Your task to perform on an android device: move an email to a new category in the gmail app Image 0: 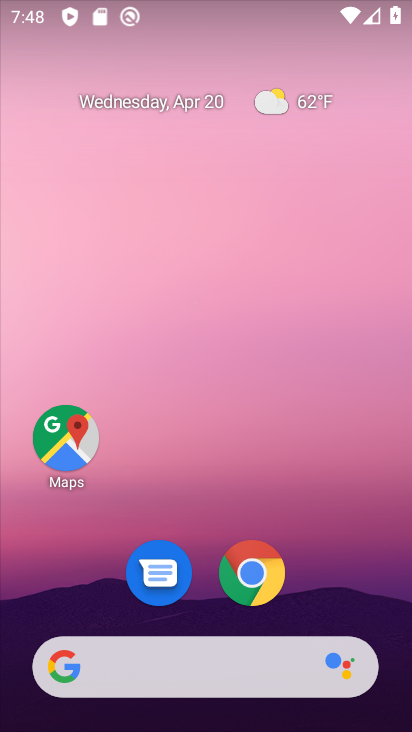
Step 0: drag from (290, 620) to (261, 74)
Your task to perform on an android device: move an email to a new category in the gmail app Image 1: 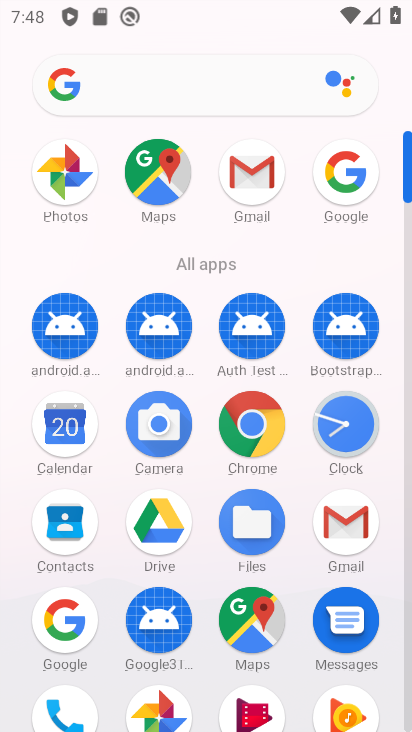
Step 1: click (255, 168)
Your task to perform on an android device: move an email to a new category in the gmail app Image 2: 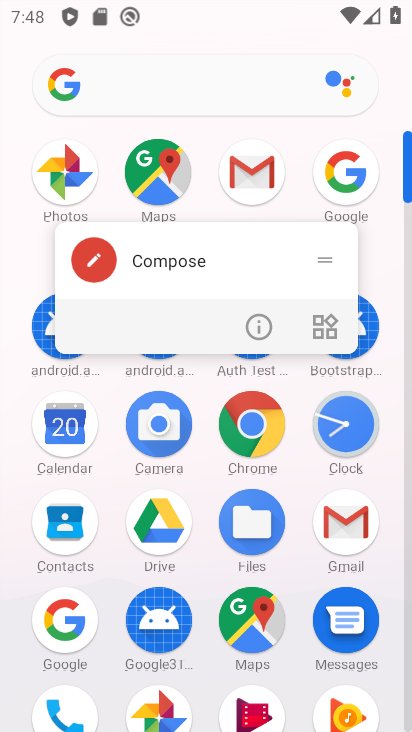
Step 2: click (266, 156)
Your task to perform on an android device: move an email to a new category in the gmail app Image 3: 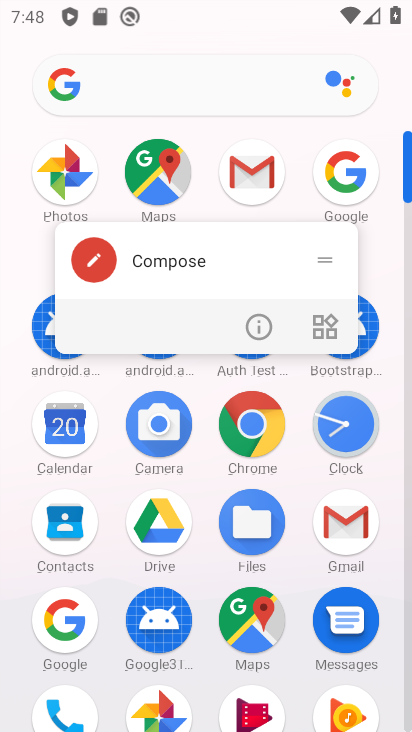
Step 3: click (244, 171)
Your task to perform on an android device: move an email to a new category in the gmail app Image 4: 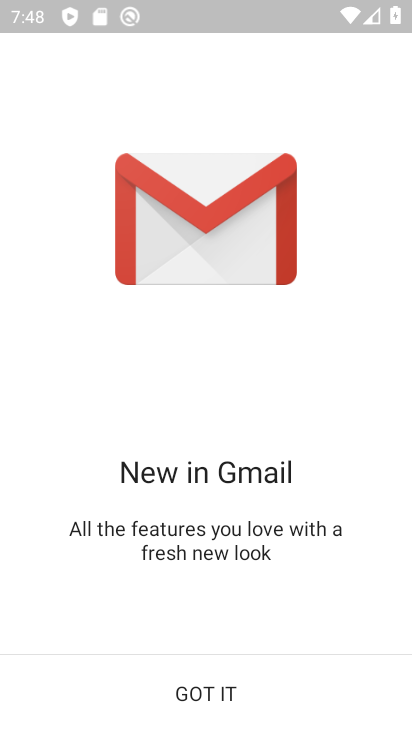
Step 4: click (241, 679)
Your task to perform on an android device: move an email to a new category in the gmail app Image 5: 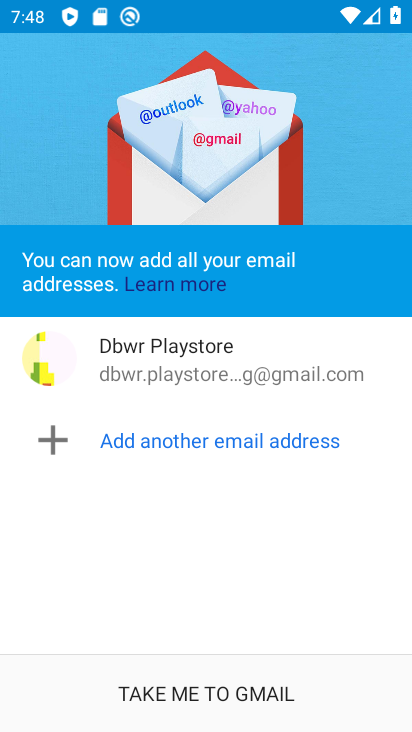
Step 5: click (241, 679)
Your task to perform on an android device: move an email to a new category in the gmail app Image 6: 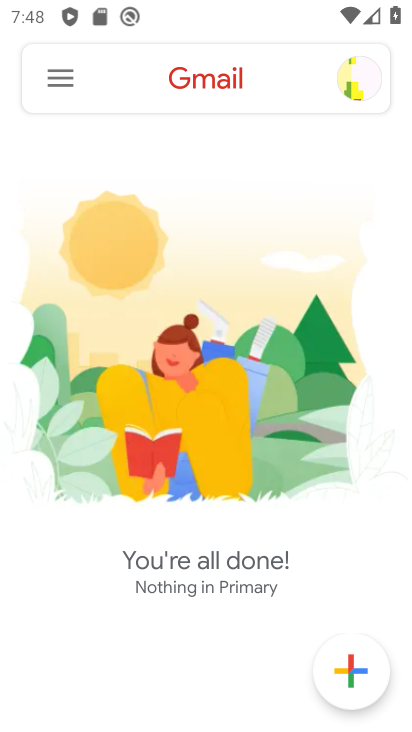
Step 6: click (52, 55)
Your task to perform on an android device: move an email to a new category in the gmail app Image 7: 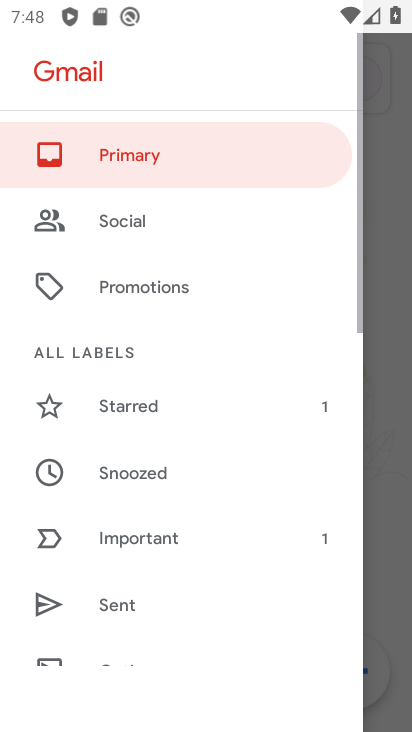
Step 7: drag from (220, 557) to (246, 18)
Your task to perform on an android device: move an email to a new category in the gmail app Image 8: 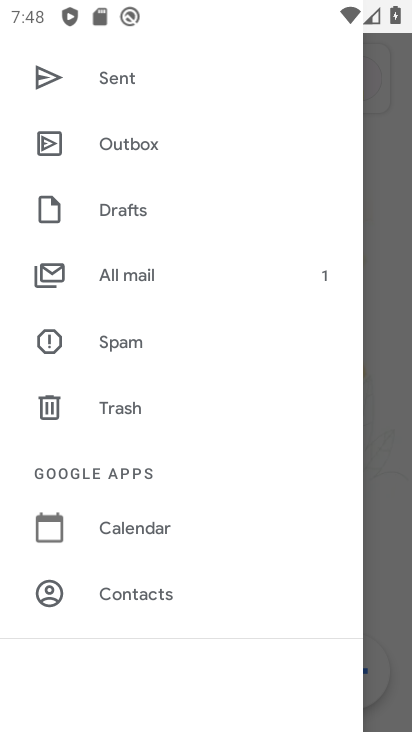
Step 8: drag from (228, 356) to (233, 126)
Your task to perform on an android device: move an email to a new category in the gmail app Image 9: 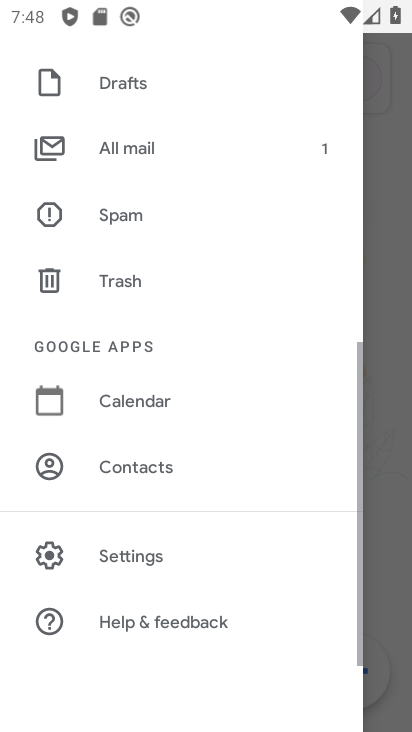
Step 9: drag from (233, 126) to (227, 307)
Your task to perform on an android device: move an email to a new category in the gmail app Image 10: 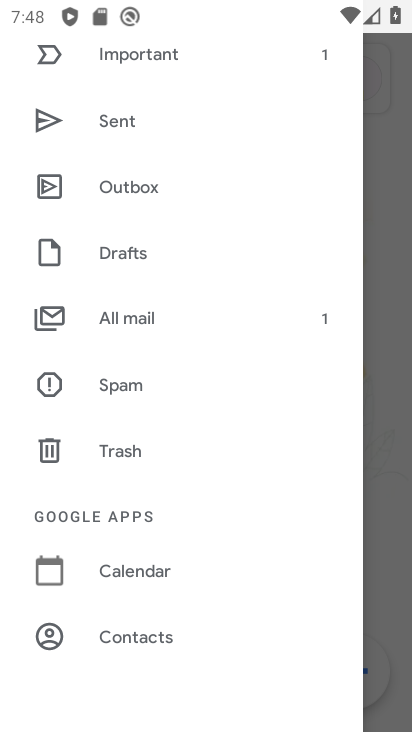
Step 10: drag from (212, 547) to (205, 53)
Your task to perform on an android device: move an email to a new category in the gmail app Image 11: 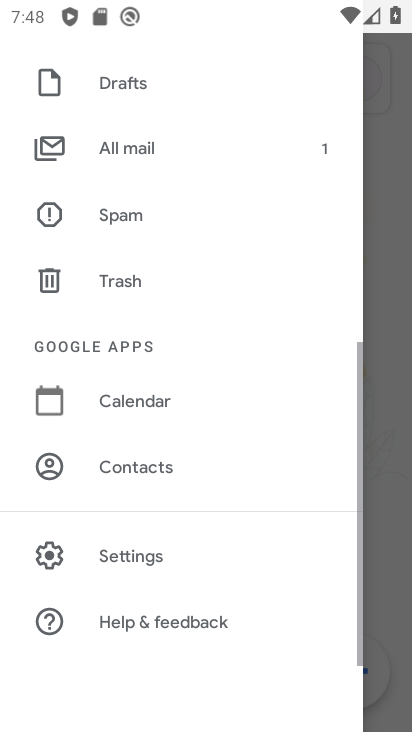
Step 11: drag from (229, 189) to (234, 454)
Your task to perform on an android device: move an email to a new category in the gmail app Image 12: 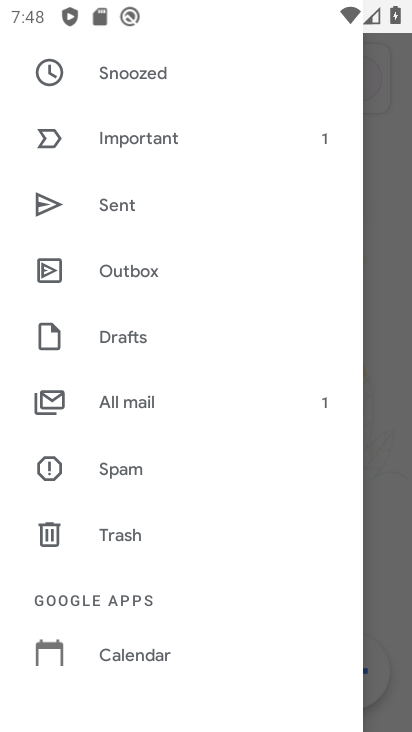
Step 12: click (161, 399)
Your task to perform on an android device: move an email to a new category in the gmail app Image 13: 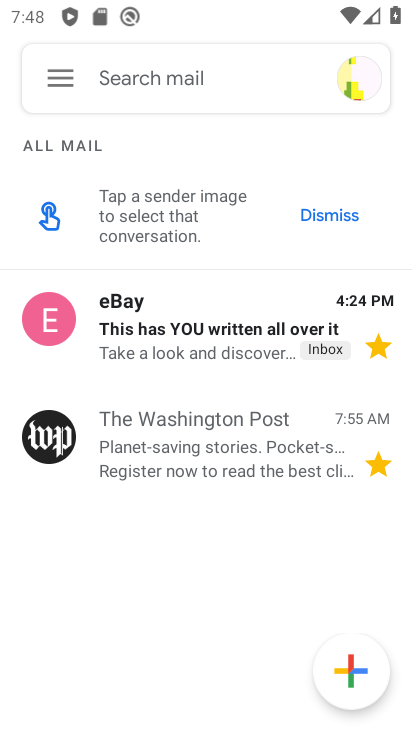
Step 13: click (390, 348)
Your task to perform on an android device: move an email to a new category in the gmail app Image 14: 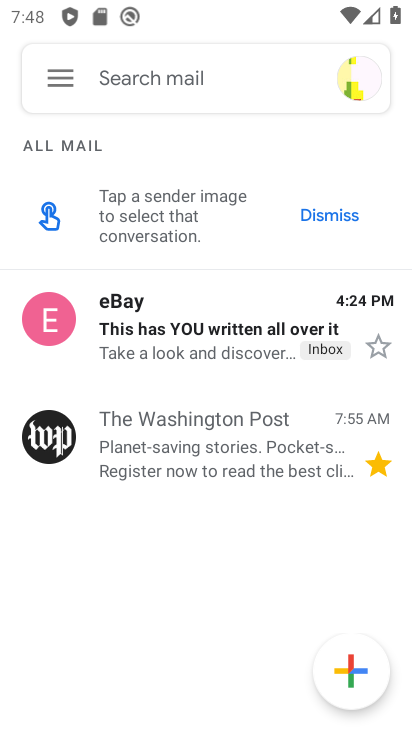
Step 14: task complete